Your task to perform on an android device: turn on bluetooth scan Image 0: 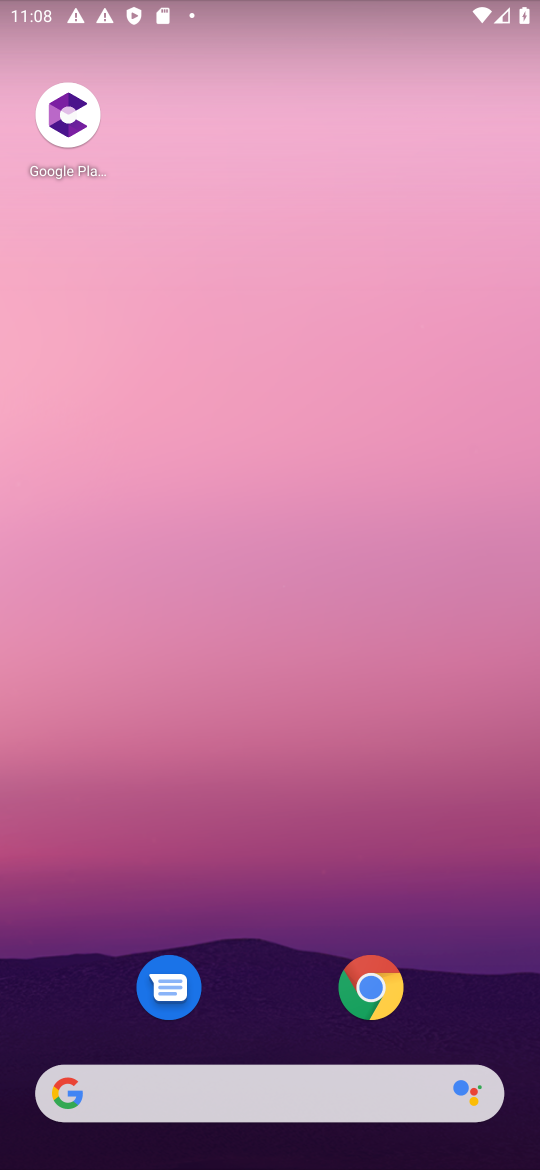
Step 0: drag from (235, 1066) to (234, 453)
Your task to perform on an android device: turn on bluetooth scan Image 1: 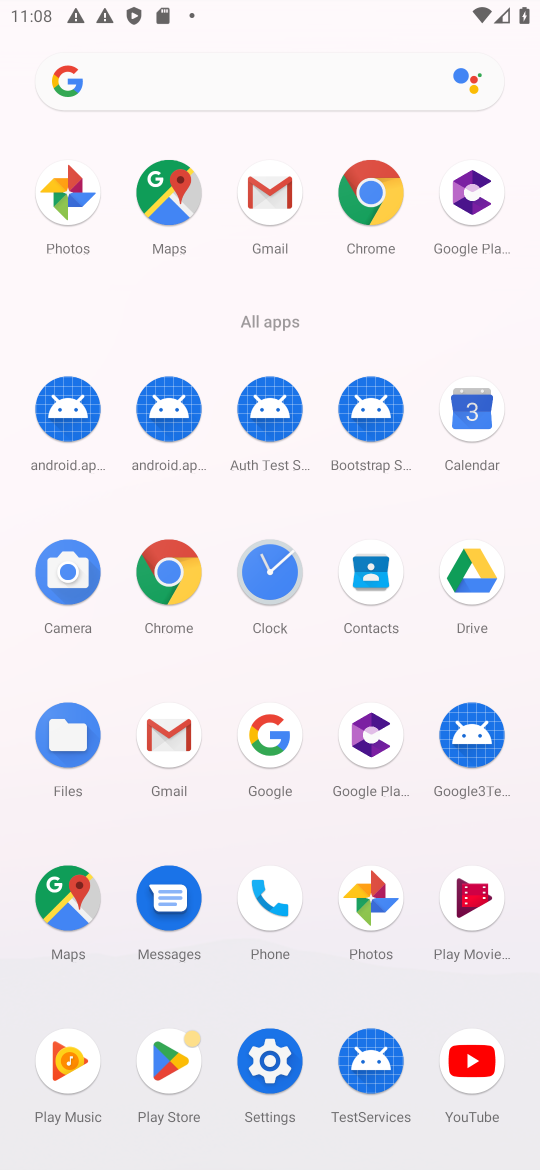
Step 1: click (272, 1052)
Your task to perform on an android device: turn on bluetooth scan Image 2: 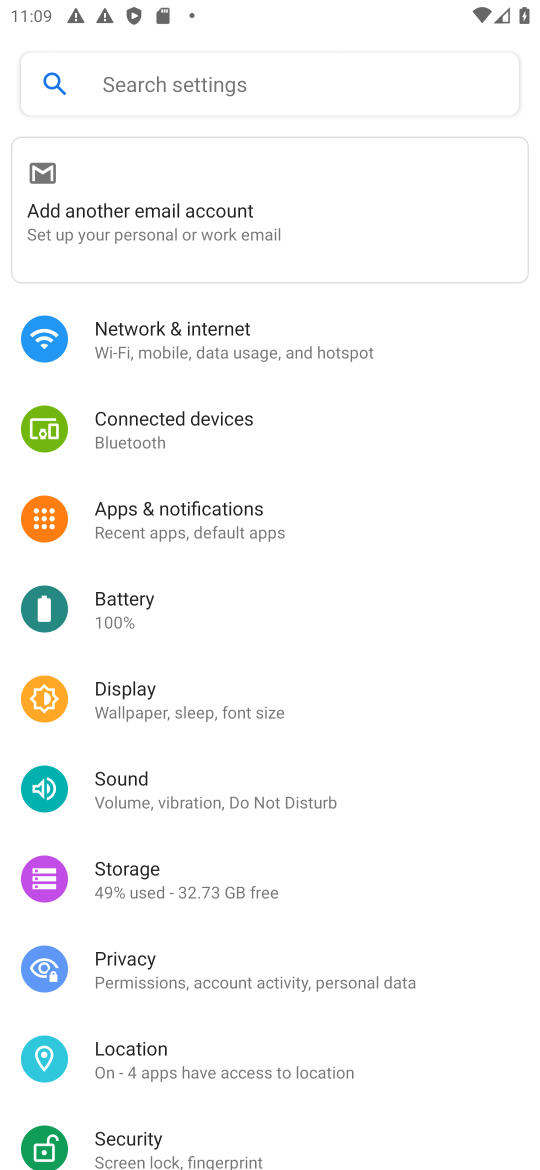
Step 2: click (134, 1071)
Your task to perform on an android device: turn on bluetooth scan Image 3: 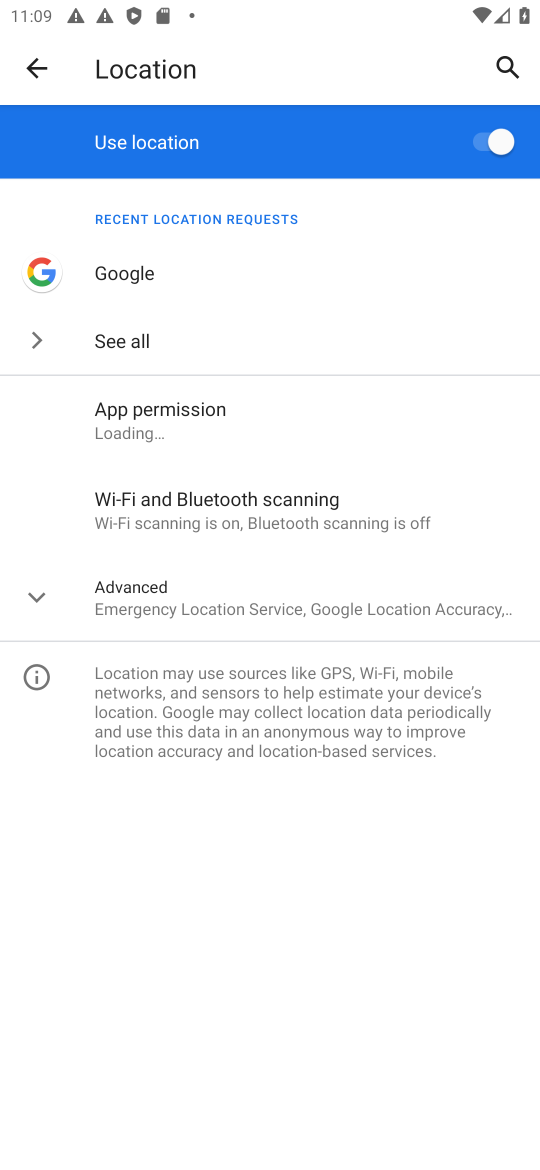
Step 3: click (196, 522)
Your task to perform on an android device: turn on bluetooth scan Image 4: 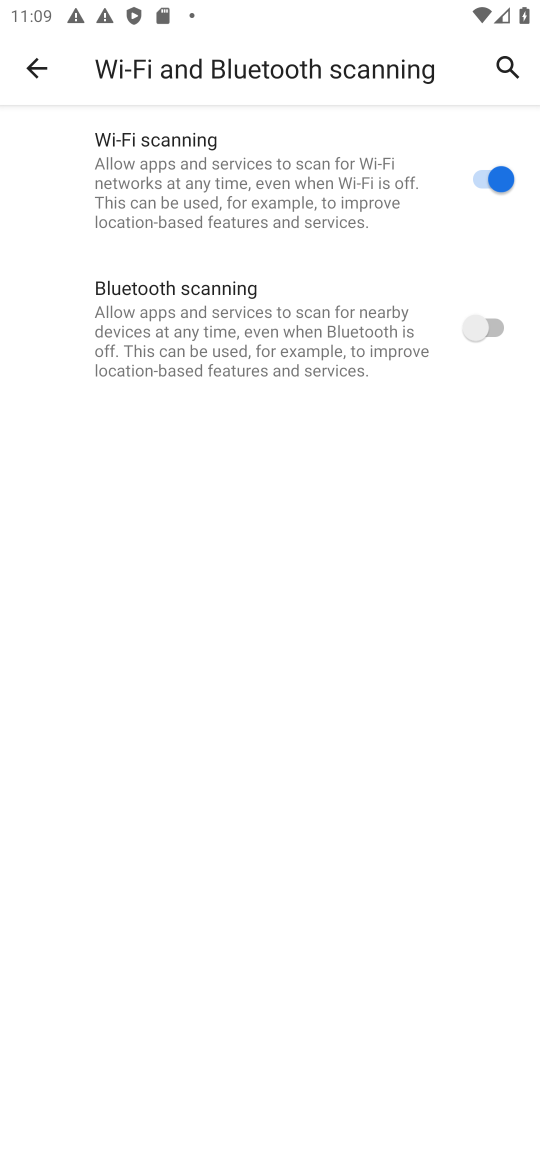
Step 4: click (476, 329)
Your task to perform on an android device: turn on bluetooth scan Image 5: 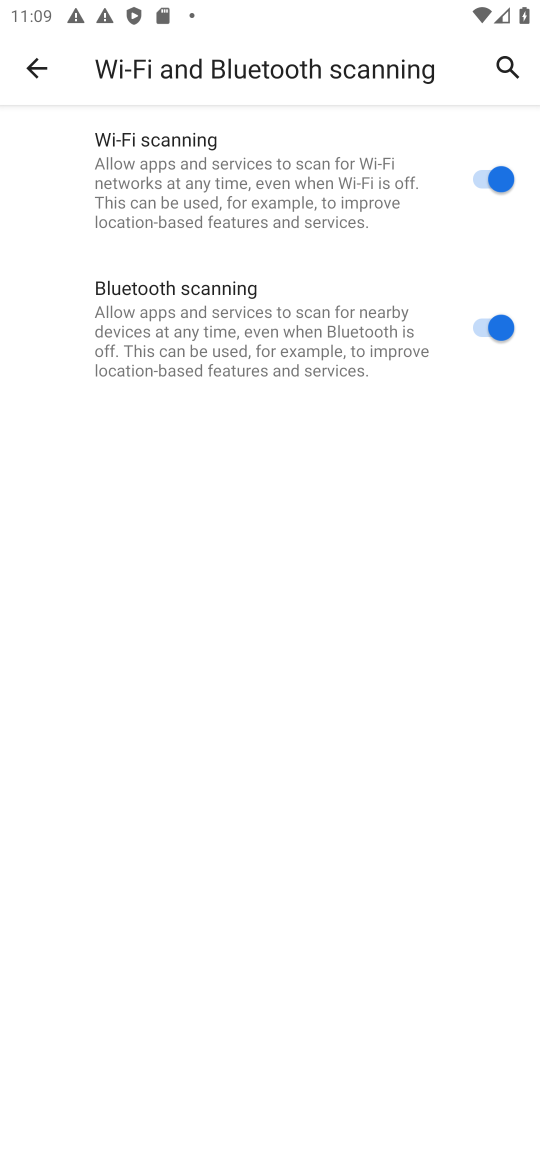
Step 5: task complete